Your task to perform on an android device: add a label to a message in the gmail app Image 0: 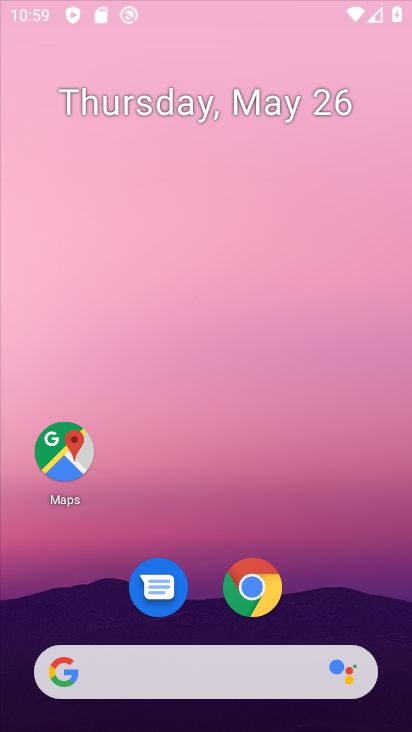
Step 0: press home button
Your task to perform on an android device: add a label to a message in the gmail app Image 1: 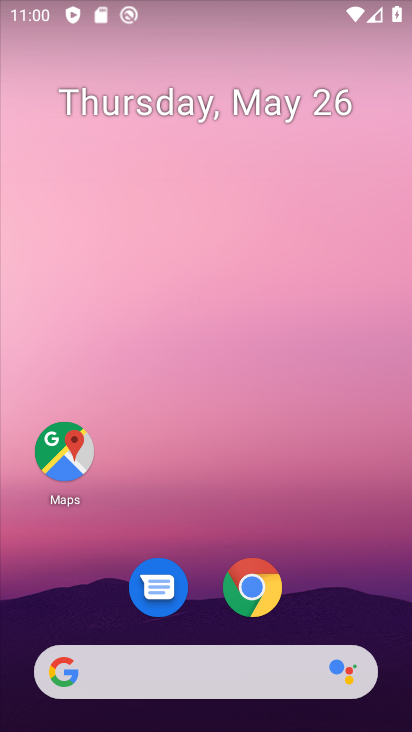
Step 1: drag from (230, 694) to (410, 66)
Your task to perform on an android device: add a label to a message in the gmail app Image 2: 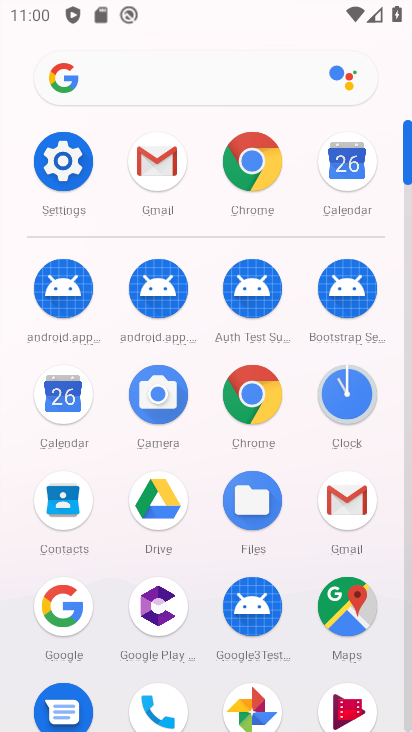
Step 2: click (162, 179)
Your task to perform on an android device: add a label to a message in the gmail app Image 3: 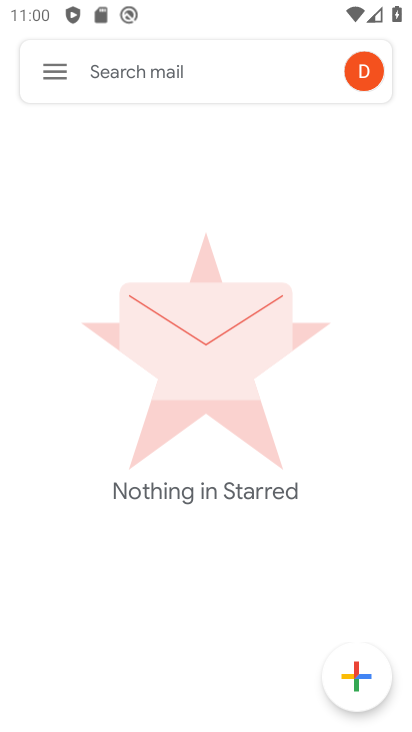
Step 3: click (59, 85)
Your task to perform on an android device: add a label to a message in the gmail app Image 4: 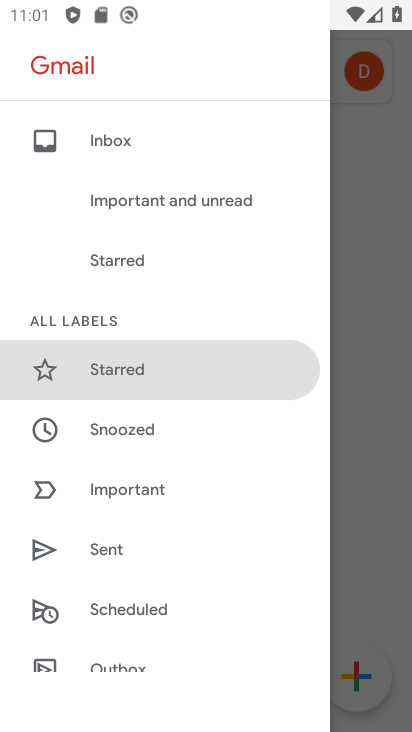
Step 4: drag from (141, 490) to (249, 186)
Your task to perform on an android device: add a label to a message in the gmail app Image 5: 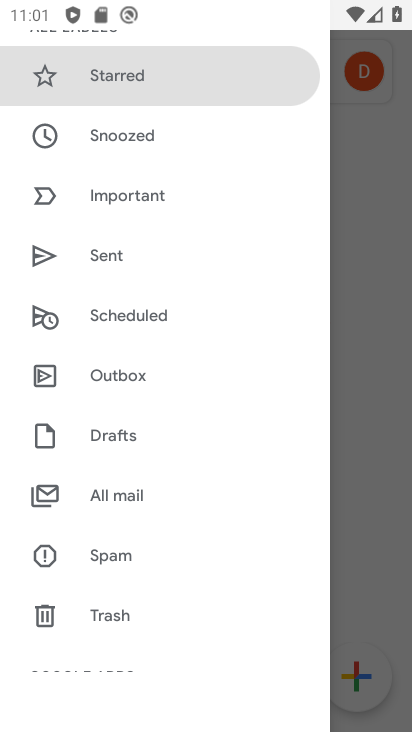
Step 5: drag from (139, 534) to (212, 284)
Your task to perform on an android device: add a label to a message in the gmail app Image 6: 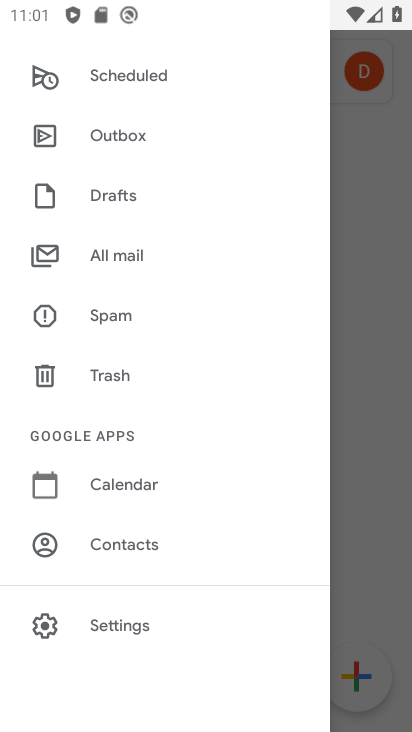
Step 6: click (101, 623)
Your task to perform on an android device: add a label to a message in the gmail app Image 7: 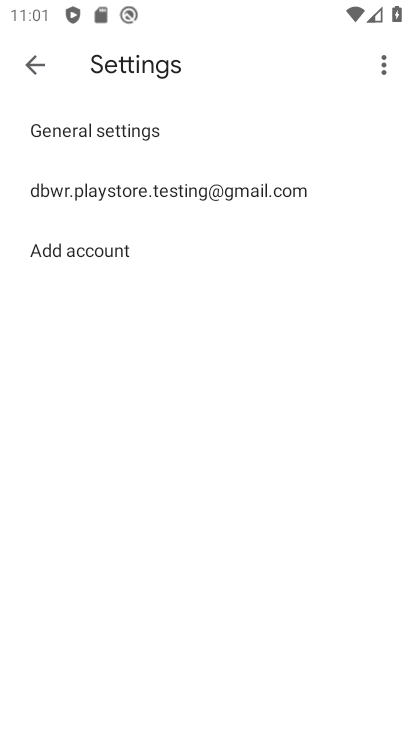
Step 7: click (181, 206)
Your task to perform on an android device: add a label to a message in the gmail app Image 8: 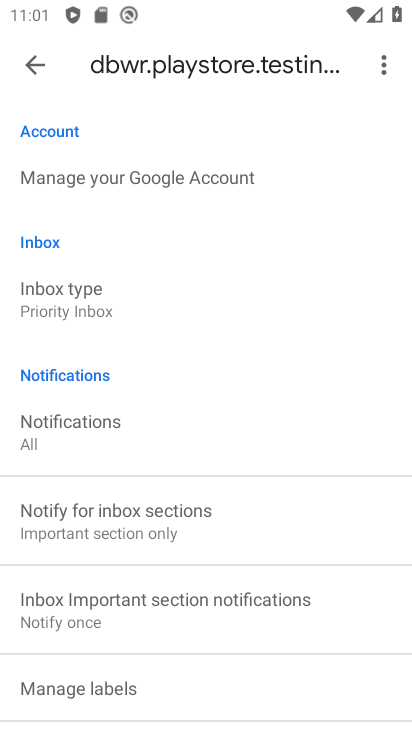
Step 8: click (133, 674)
Your task to perform on an android device: add a label to a message in the gmail app Image 9: 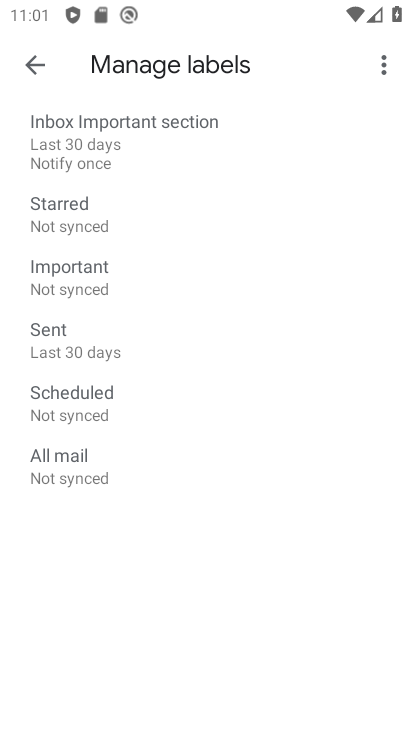
Step 9: click (114, 360)
Your task to perform on an android device: add a label to a message in the gmail app Image 10: 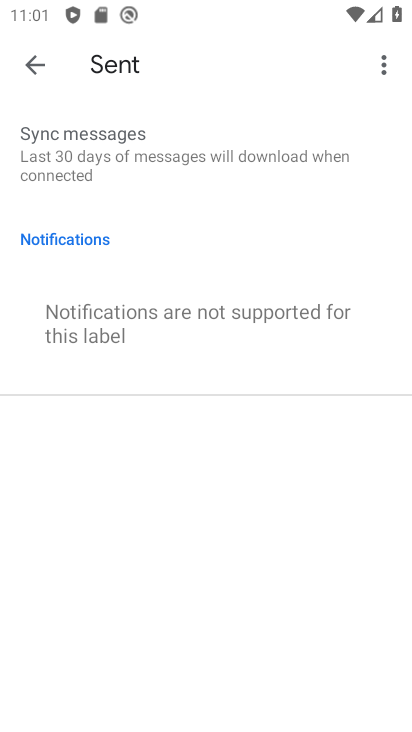
Step 10: task complete